Your task to perform on an android device: all mails in gmail Image 0: 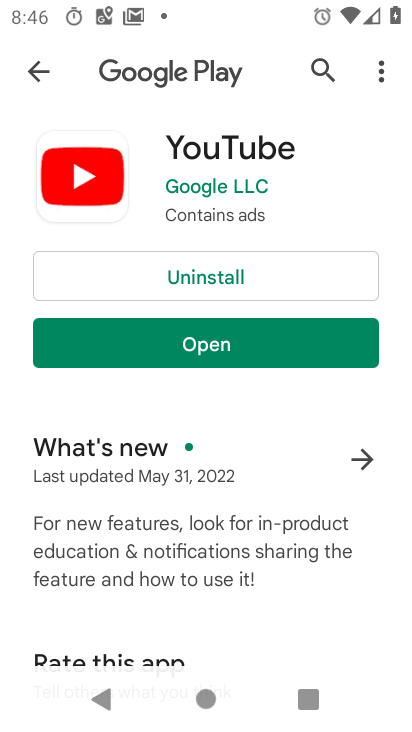
Step 0: press home button
Your task to perform on an android device: all mails in gmail Image 1: 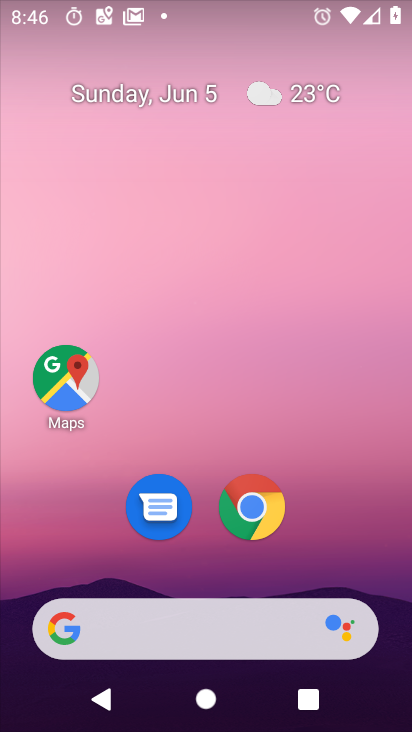
Step 1: drag from (281, 648) to (241, 192)
Your task to perform on an android device: all mails in gmail Image 2: 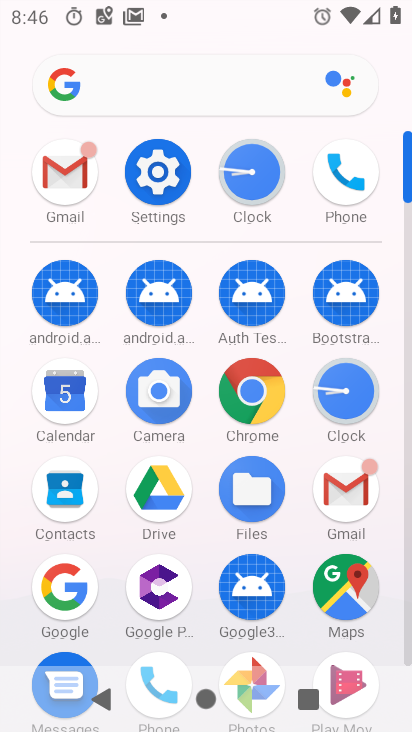
Step 2: click (333, 497)
Your task to perform on an android device: all mails in gmail Image 3: 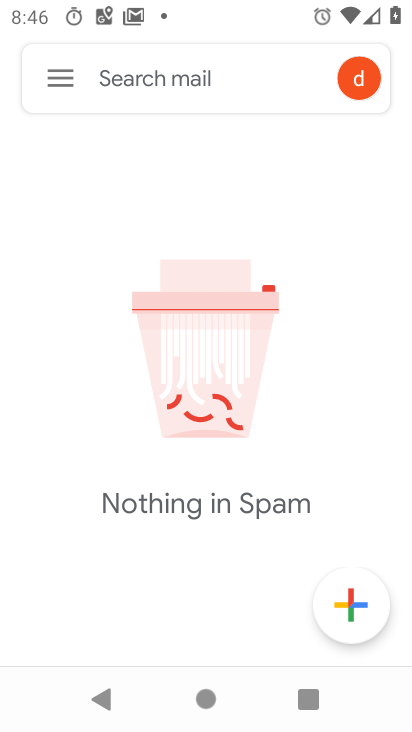
Step 3: click (48, 88)
Your task to perform on an android device: all mails in gmail Image 4: 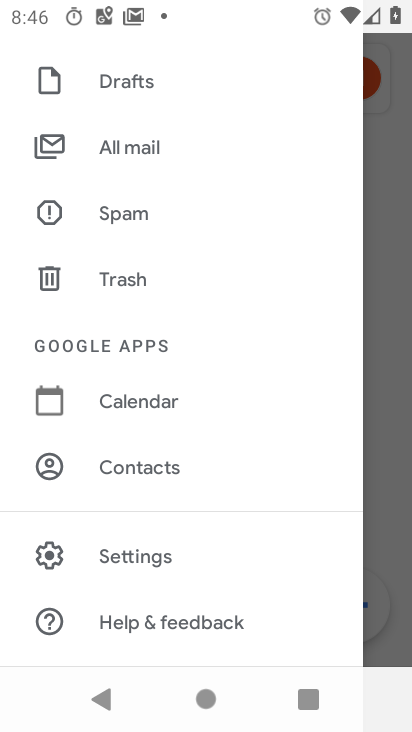
Step 4: click (137, 554)
Your task to perform on an android device: all mails in gmail Image 5: 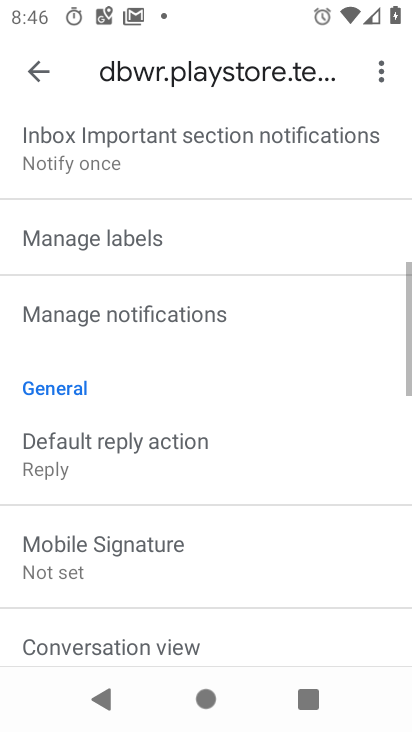
Step 5: click (47, 79)
Your task to perform on an android device: all mails in gmail Image 6: 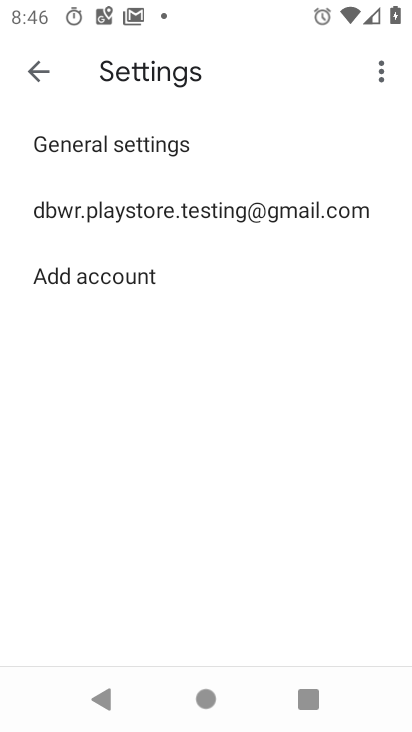
Step 6: click (29, 78)
Your task to perform on an android device: all mails in gmail Image 7: 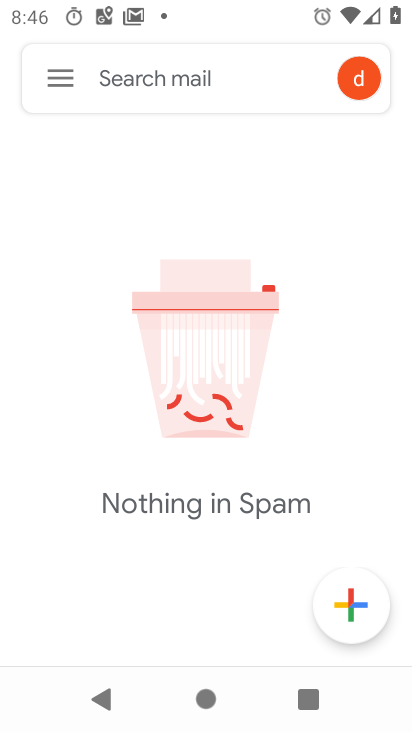
Step 7: click (52, 82)
Your task to perform on an android device: all mails in gmail Image 8: 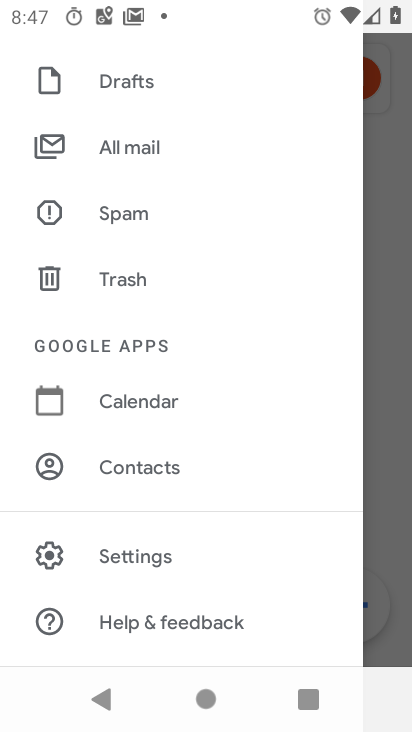
Step 8: click (152, 143)
Your task to perform on an android device: all mails in gmail Image 9: 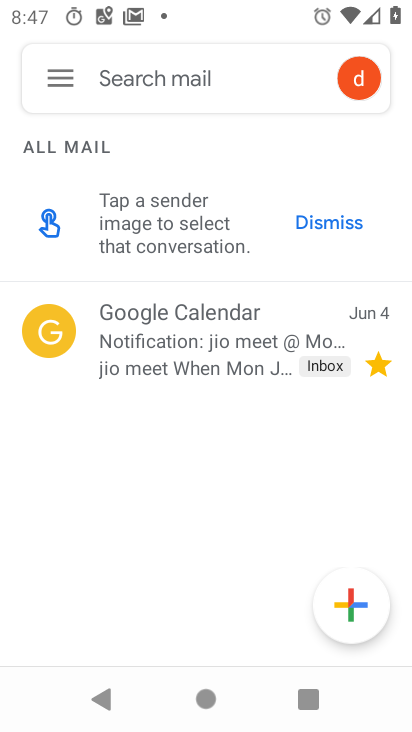
Step 9: click (309, 219)
Your task to perform on an android device: all mails in gmail Image 10: 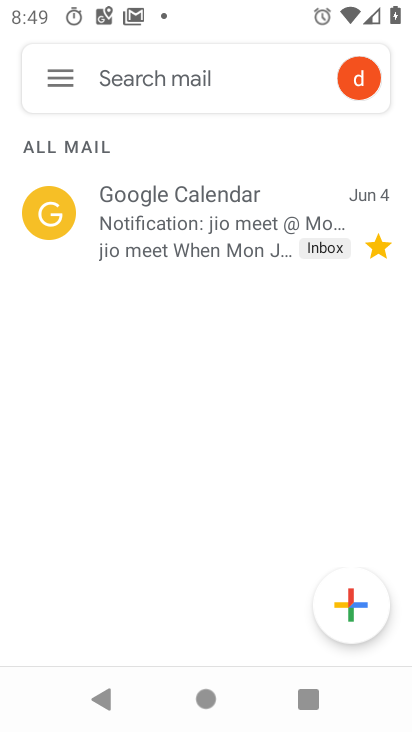
Step 10: task complete